Your task to perform on an android device: Go to calendar. Show me events next week Image 0: 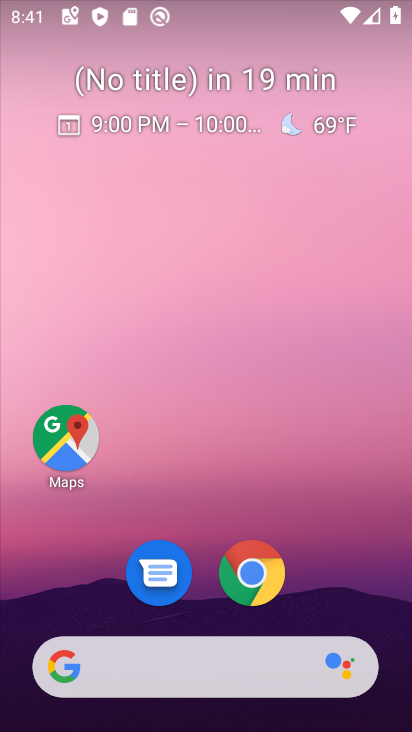
Step 0: drag from (200, 607) to (256, 159)
Your task to perform on an android device: Go to calendar. Show me events next week Image 1: 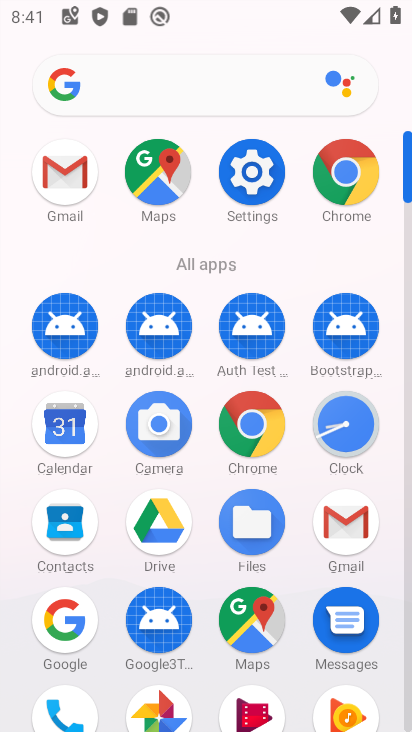
Step 1: click (61, 440)
Your task to perform on an android device: Go to calendar. Show me events next week Image 2: 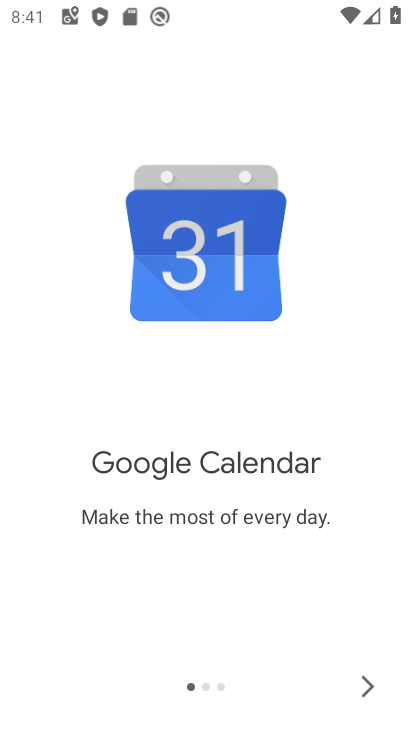
Step 2: click (363, 695)
Your task to perform on an android device: Go to calendar. Show me events next week Image 3: 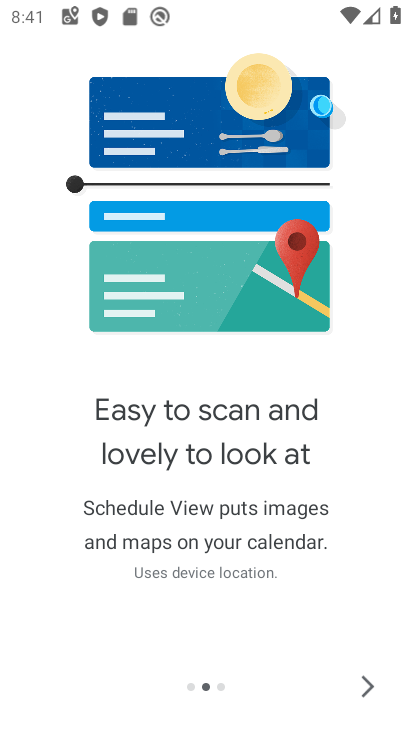
Step 3: click (360, 673)
Your task to perform on an android device: Go to calendar. Show me events next week Image 4: 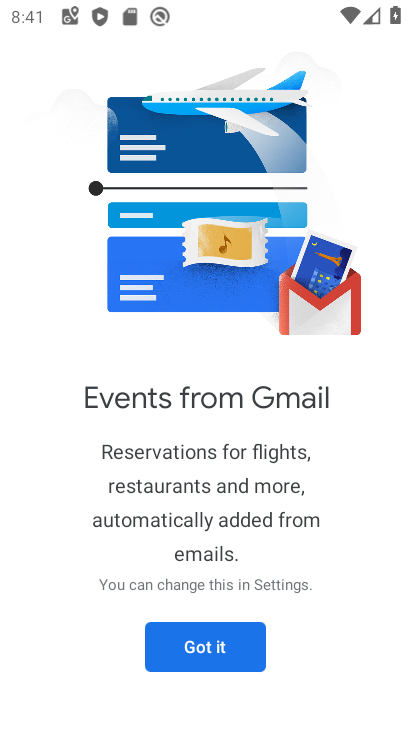
Step 4: click (217, 643)
Your task to perform on an android device: Go to calendar. Show me events next week Image 5: 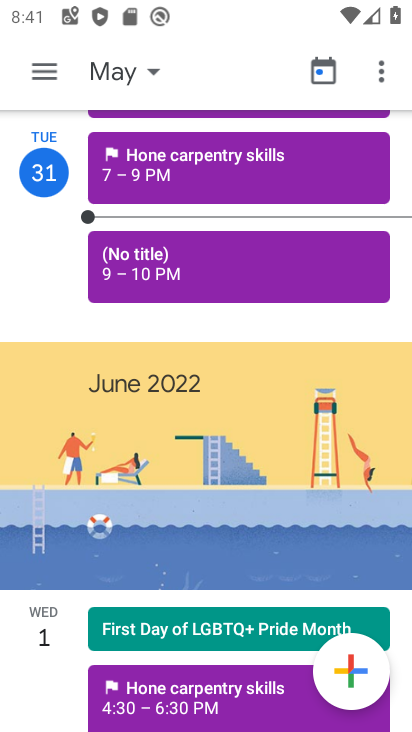
Step 5: click (49, 68)
Your task to perform on an android device: Go to calendar. Show me events next week Image 6: 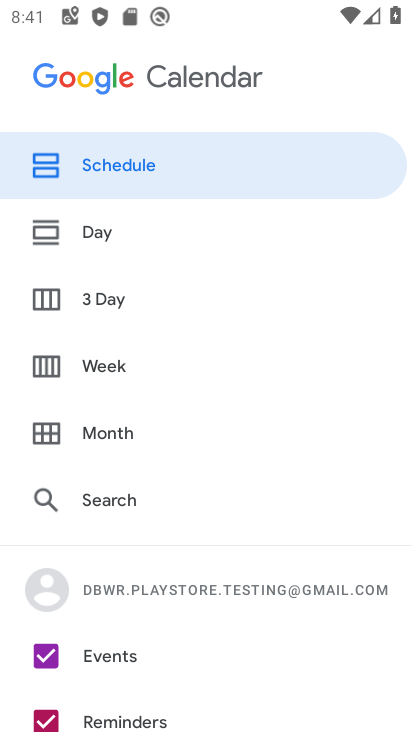
Step 6: drag from (100, 567) to (150, 286)
Your task to perform on an android device: Go to calendar. Show me events next week Image 7: 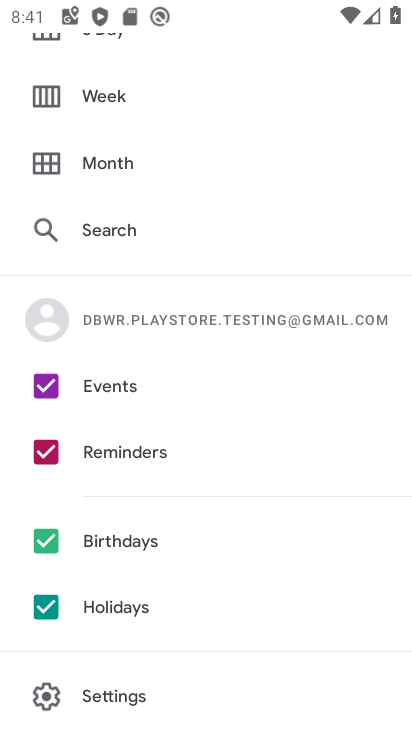
Step 7: click (134, 462)
Your task to perform on an android device: Go to calendar. Show me events next week Image 8: 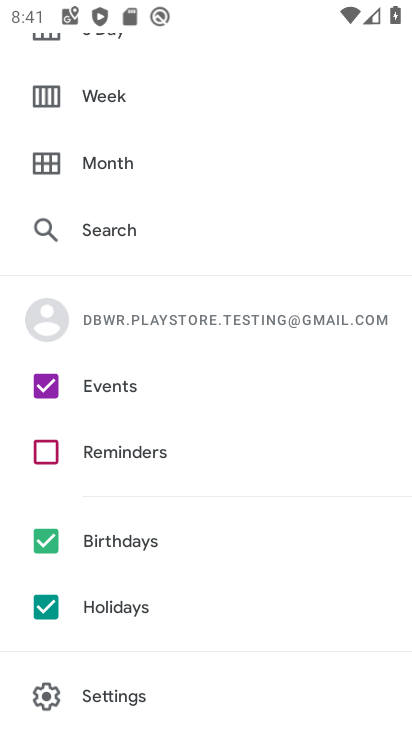
Step 8: click (112, 557)
Your task to perform on an android device: Go to calendar. Show me events next week Image 9: 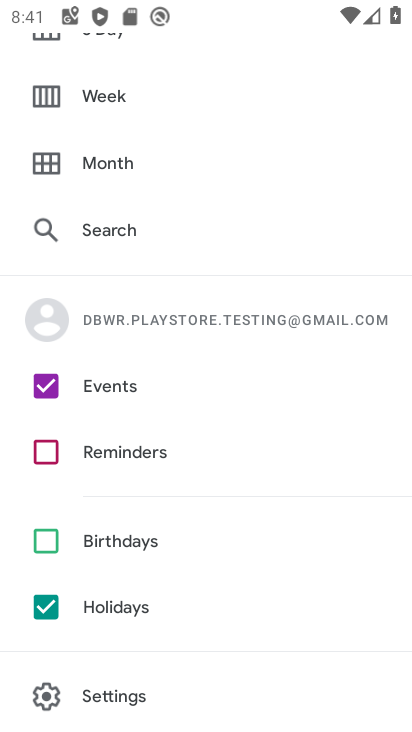
Step 9: click (102, 612)
Your task to perform on an android device: Go to calendar. Show me events next week Image 10: 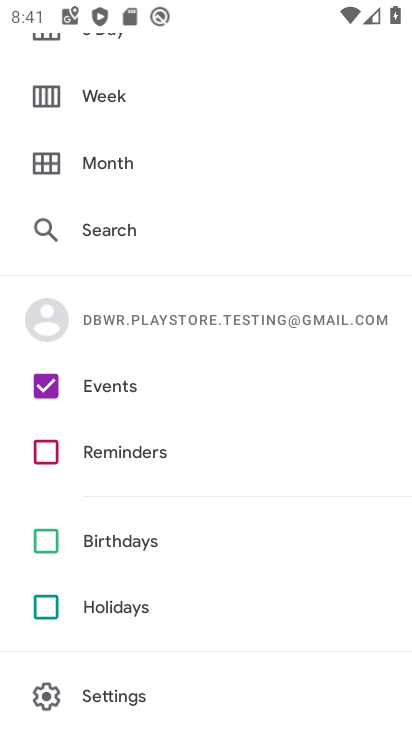
Step 10: drag from (193, 170) to (211, 370)
Your task to perform on an android device: Go to calendar. Show me events next week Image 11: 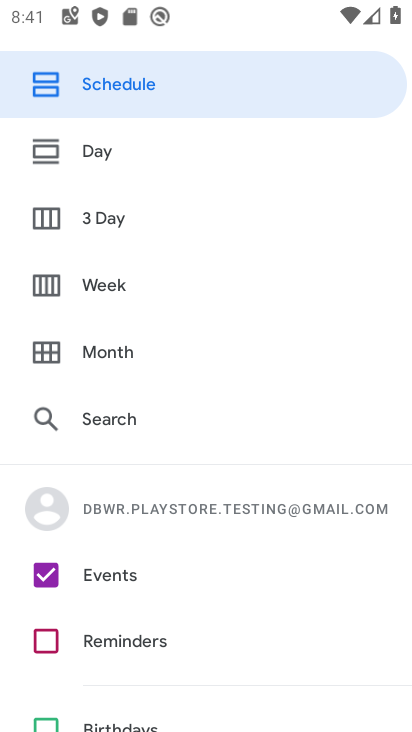
Step 11: click (107, 297)
Your task to perform on an android device: Go to calendar. Show me events next week Image 12: 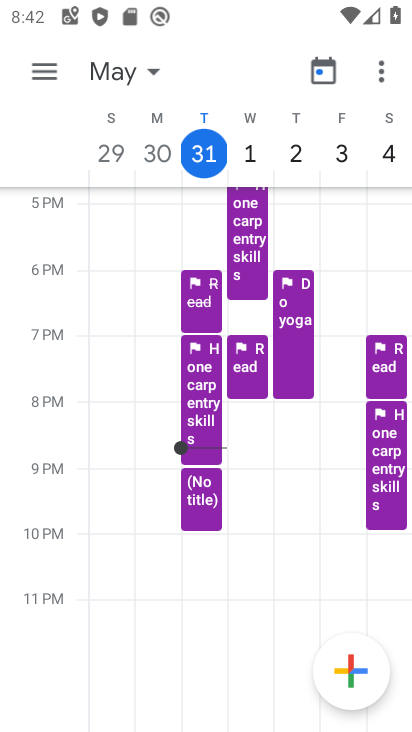
Step 12: click (193, 362)
Your task to perform on an android device: Go to calendar. Show me events next week Image 13: 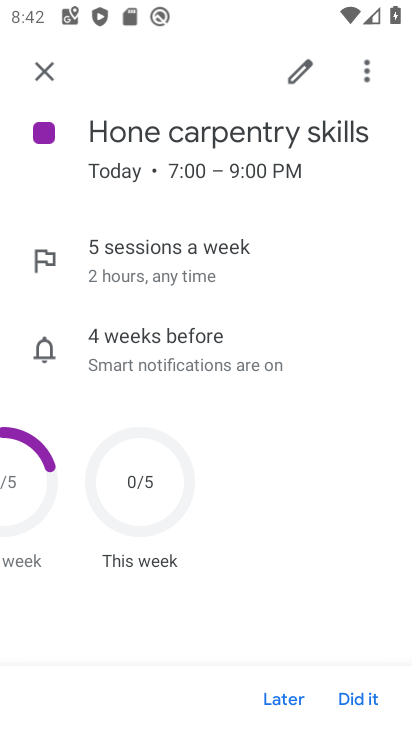
Step 13: click (53, 69)
Your task to perform on an android device: Go to calendar. Show me events next week Image 14: 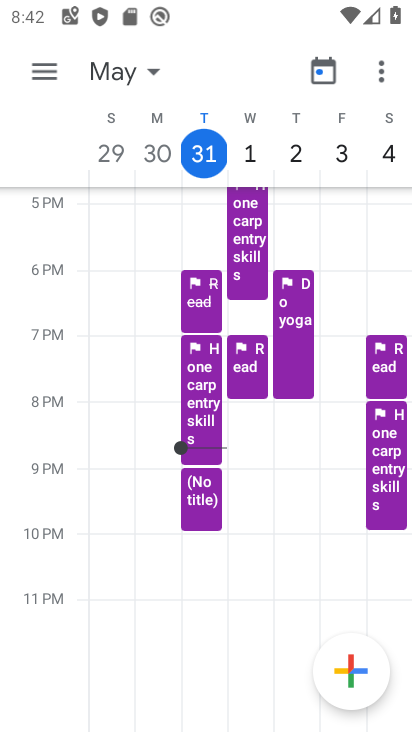
Step 14: task complete